Your task to perform on an android device: Search for sushi restaurants on Maps Image 0: 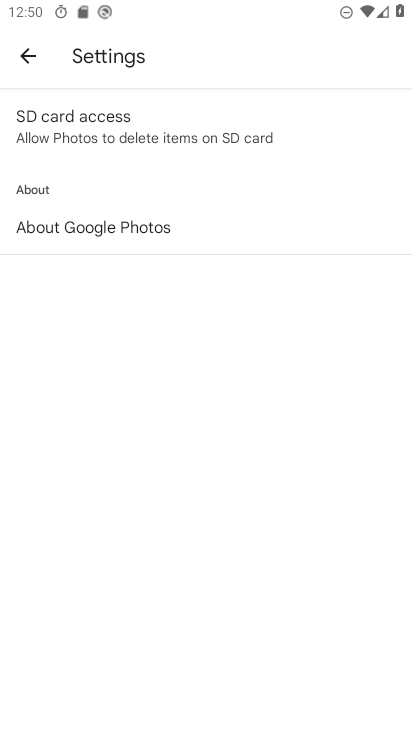
Step 0: press home button
Your task to perform on an android device: Search for sushi restaurants on Maps Image 1: 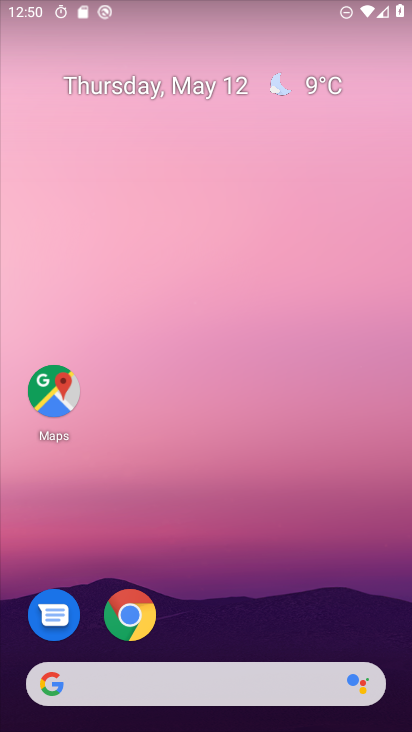
Step 1: click (47, 386)
Your task to perform on an android device: Search for sushi restaurants on Maps Image 2: 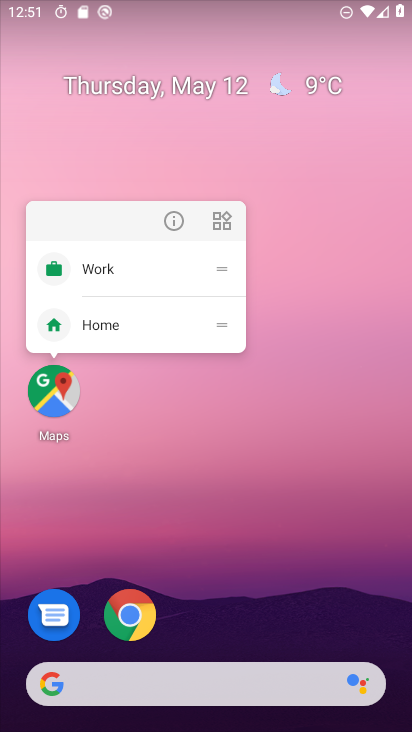
Step 2: click (53, 397)
Your task to perform on an android device: Search for sushi restaurants on Maps Image 3: 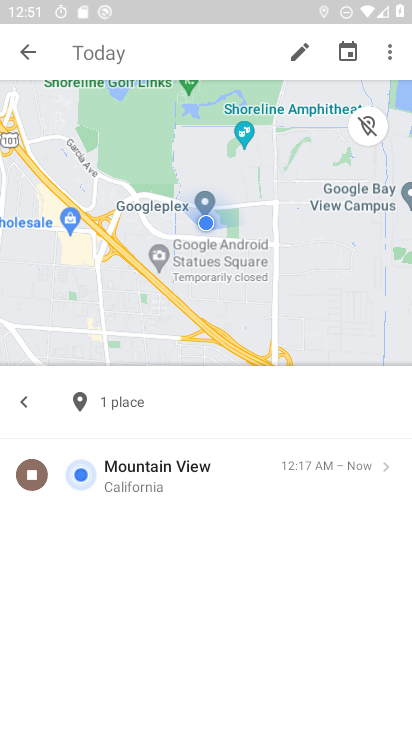
Step 3: click (19, 53)
Your task to perform on an android device: Search for sushi restaurants on Maps Image 4: 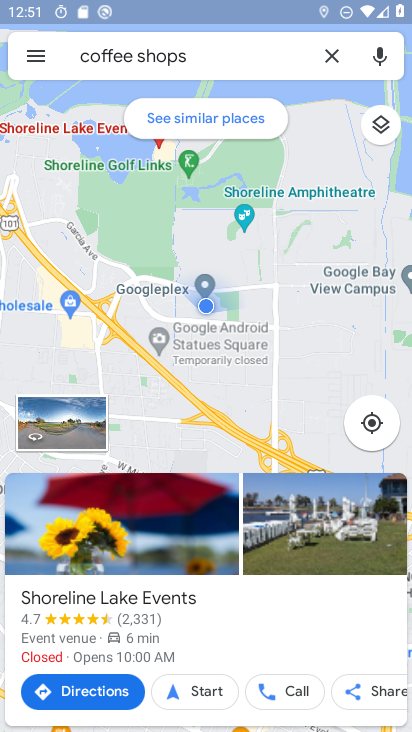
Step 4: click (116, 60)
Your task to perform on an android device: Search for sushi restaurants on Maps Image 5: 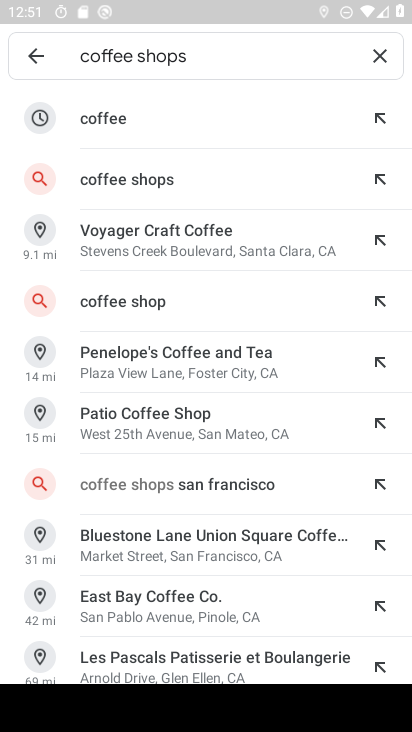
Step 5: click (378, 53)
Your task to perform on an android device: Search for sushi restaurants on Maps Image 6: 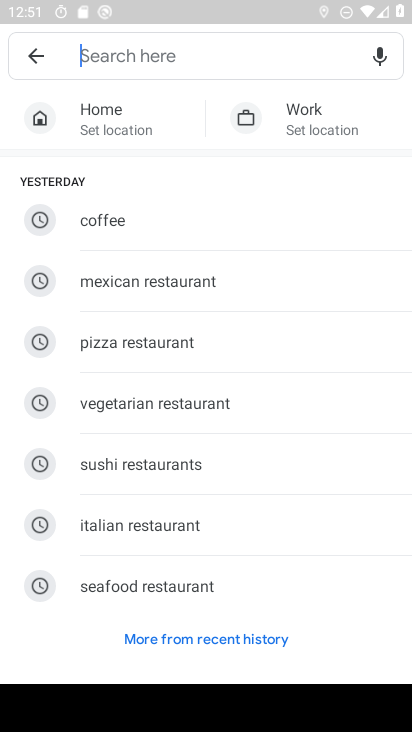
Step 6: click (256, 63)
Your task to perform on an android device: Search for sushi restaurants on Maps Image 7: 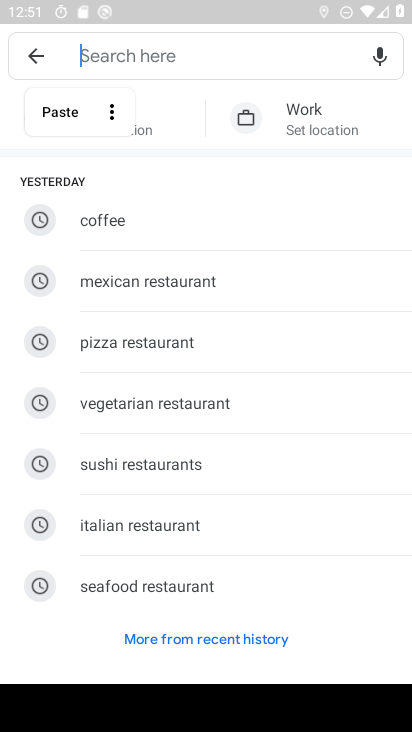
Step 7: type "sushi restaurants"
Your task to perform on an android device: Search for sushi restaurants on Maps Image 8: 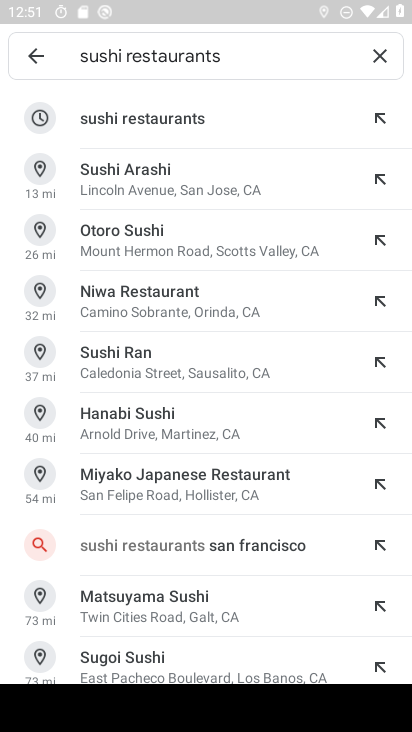
Step 8: click (186, 118)
Your task to perform on an android device: Search for sushi restaurants on Maps Image 9: 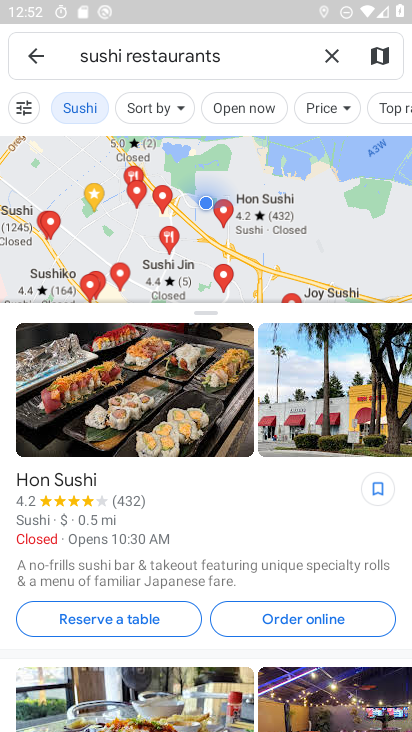
Step 9: task complete